Your task to perform on an android device: find snoozed emails in the gmail app Image 0: 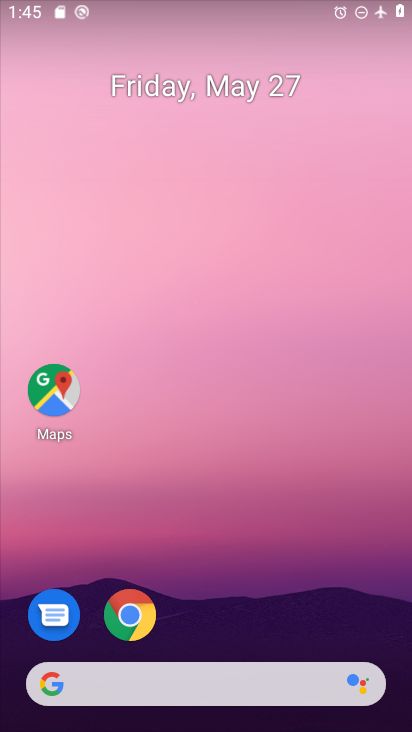
Step 0: drag from (270, 649) to (311, 8)
Your task to perform on an android device: find snoozed emails in the gmail app Image 1: 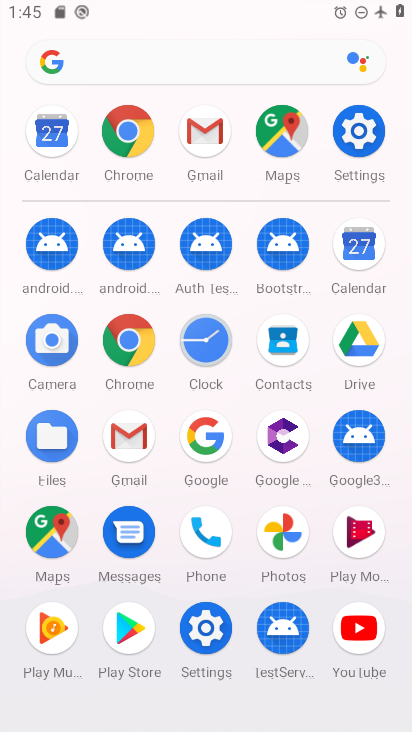
Step 1: click (131, 430)
Your task to perform on an android device: find snoozed emails in the gmail app Image 2: 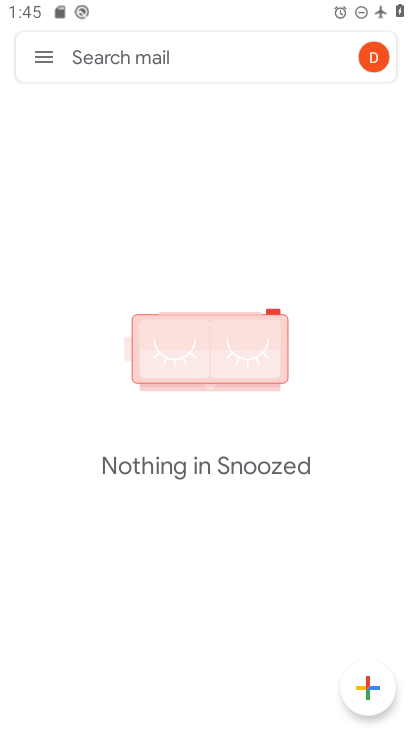
Step 2: click (41, 60)
Your task to perform on an android device: find snoozed emails in the gmail app Image 3: 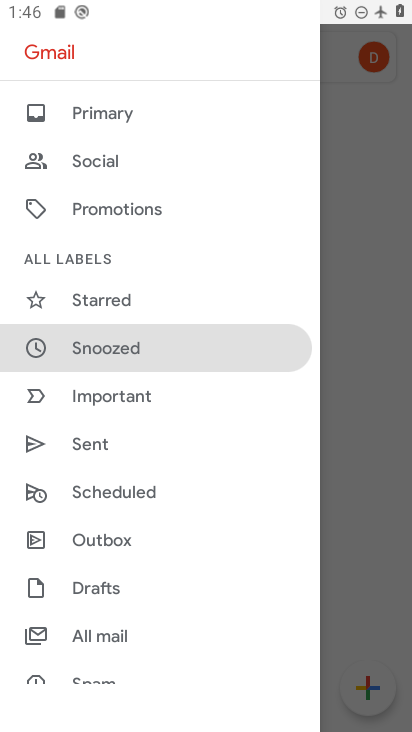
Step 3: click (362, 177)
Your task to perform on an android device: find snoozed emails in the gmail app Image 4: 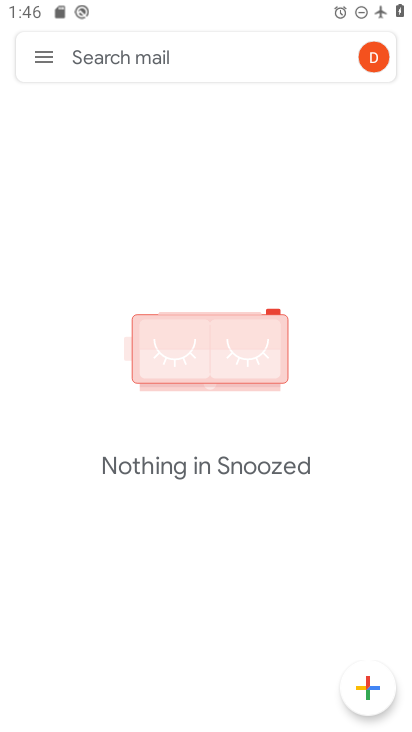
Step 4: task complete